Your task to perform on an android device: Open Android settings Image 0: 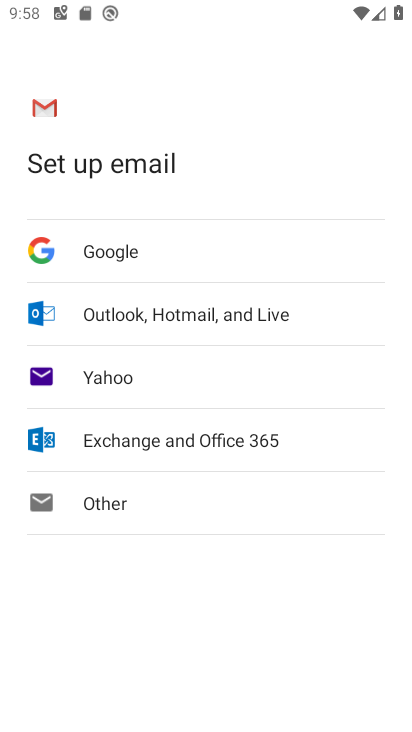
Step 0: press home button
Your task to perform on an android device: Open Android settings Image 1: 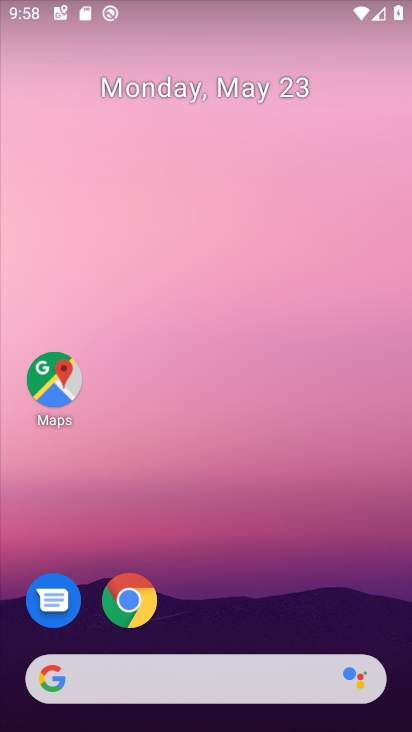
Step 1: drag from (193, 728) to (194, 106)
Your task to perform on an android device: Open Android settings Image 2: 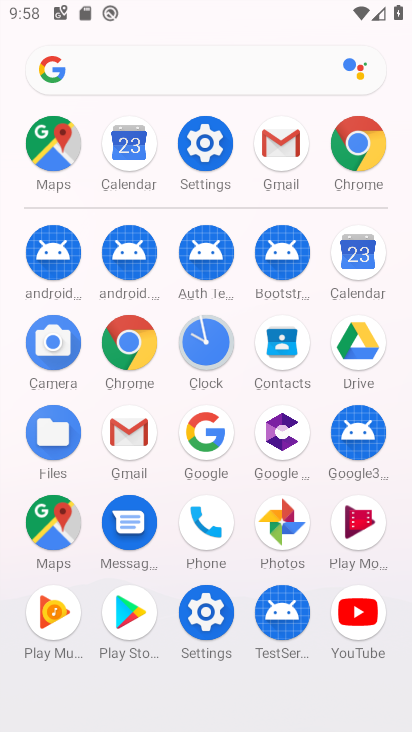
Step 2: click (203, 136)
Your task to perform on an android device: Open Android settings Image 3: 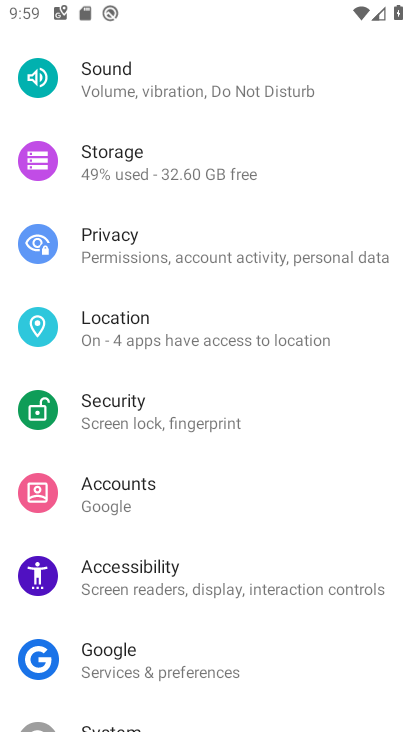
Step 3: task complete